Your task to perform on an android device: Search for Italian restaurants on Maps Image 0: 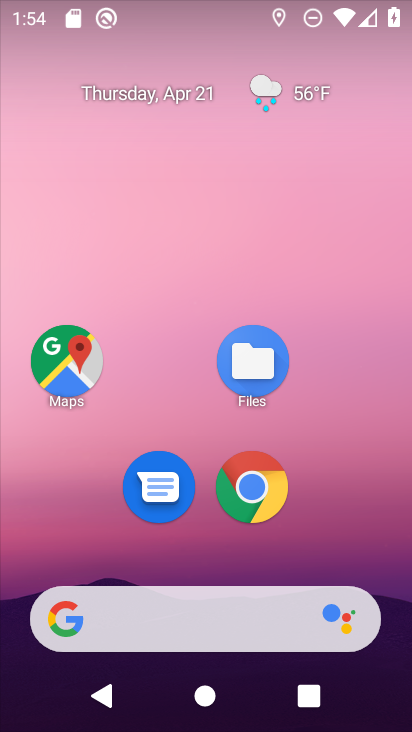
Step 0: drag from (382, 554) to (374, 198)
Your task to perform on an android device: Search for Italian restaurants on Maps Image 1: 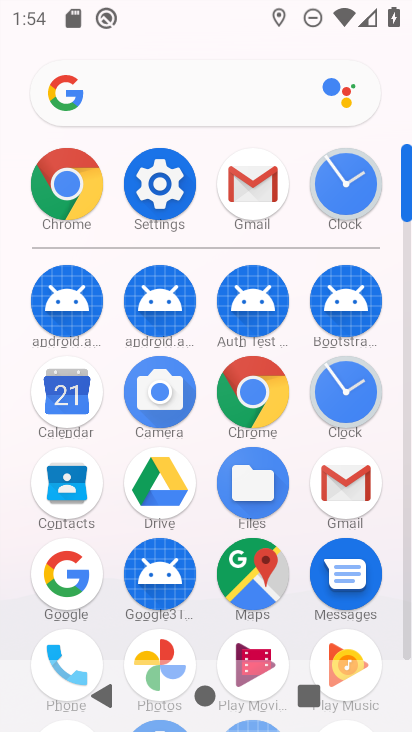
Step 1: drag from (296, 614) to (294, 306)
Your task to perform on an android device: Search for Italian restaurants on Maps Image 2: 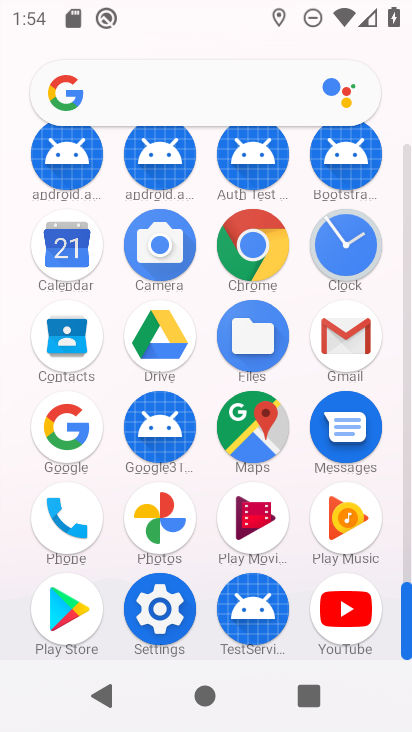
Step 2: click (262, 412)
Your task to perform on an android device: Search for Italian restaurants on Maps Image 3: 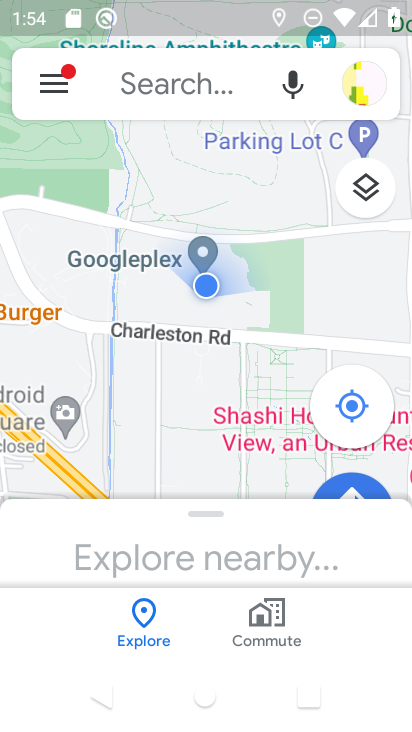
Step 3: click (172, 82)
Your task to perform on an android device: Search for Italian restaurants on Maps Image 4: 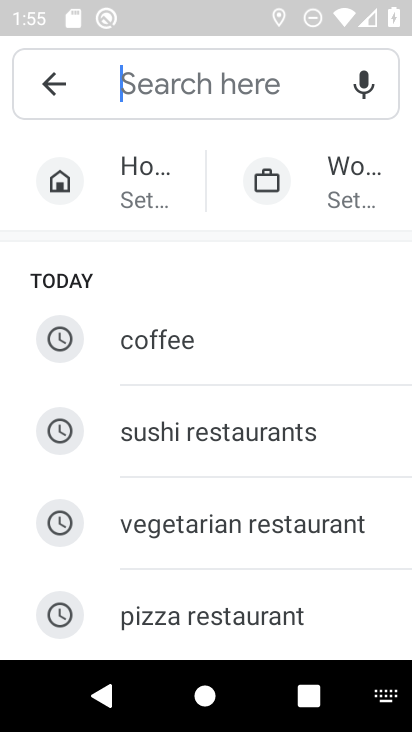
Step 4: type "italian restaurants"
Your task to perform on an android device: Search for Italian restaurants on Maps Image 5: 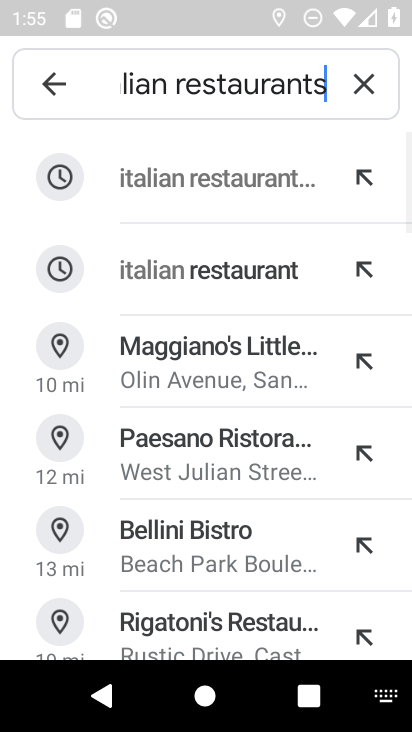
Step 5: click (159, 181)
Your task to perform on an android device: Search for Italian restaurants on Maps Image 6: 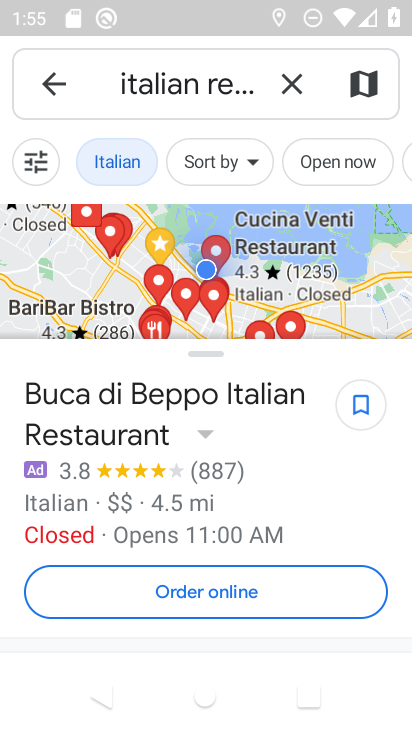
Step 6: task complete